Your task to perform on an android device: Open settings on Google Maps Image 0: 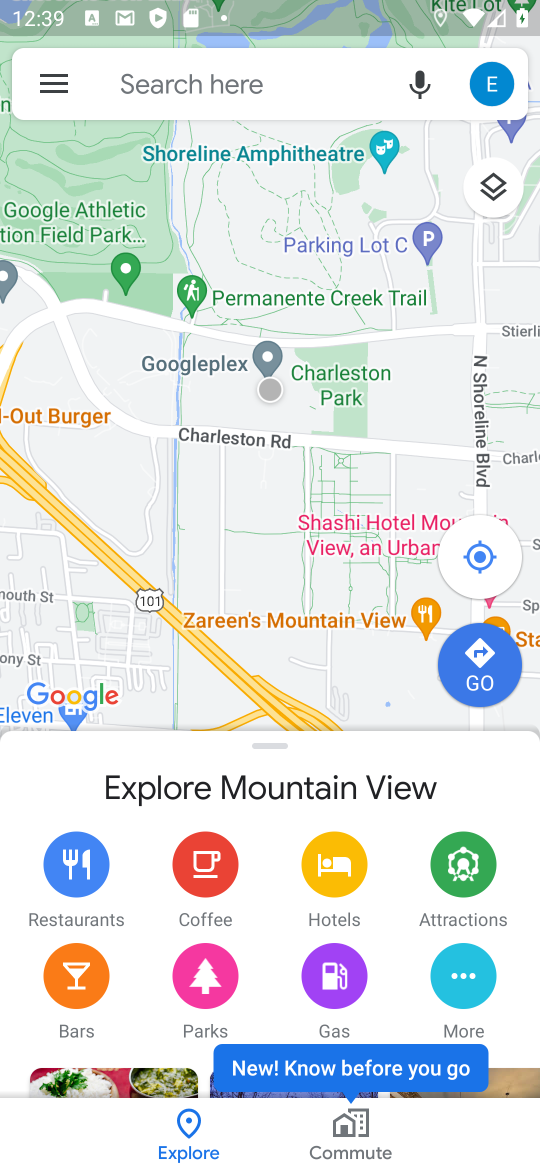
Step 0: click (58, 81)
Your task to perform on an android device: Open settings on Google Maps Image 1: 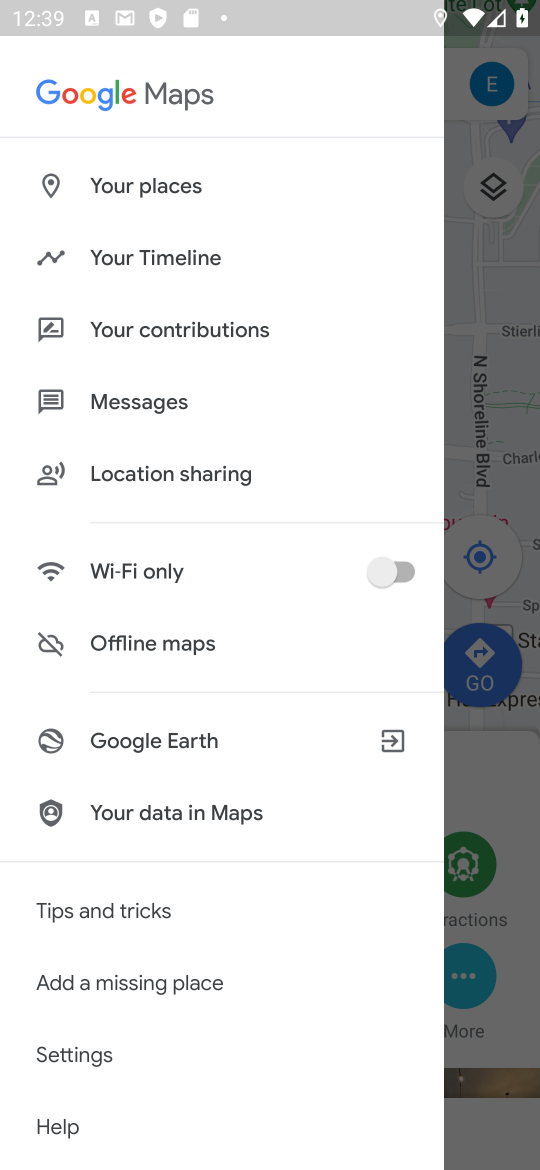
Step 1: click (105, 1046)
Your task to perform on an android device: Open settings on Google Maps Image 2: 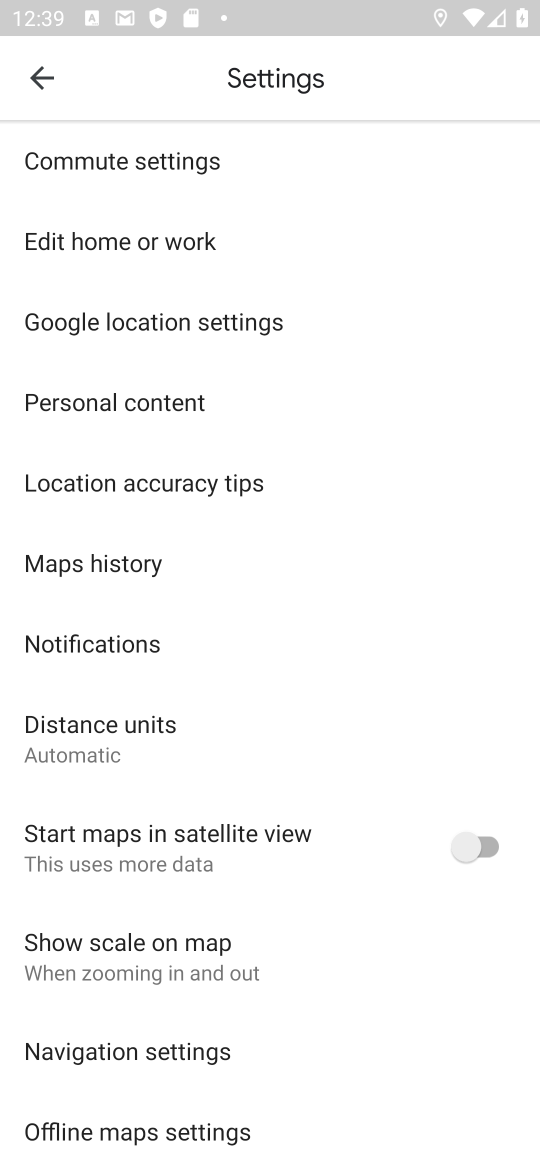
Step 2: task complete